Your task to perform on an android device: Open Chrome and go to the settings page Image 0: 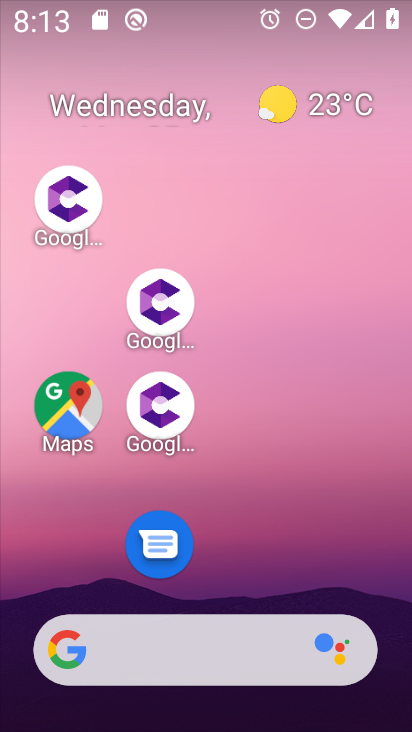
Step 0: drag from (334, 539) to (249, 21)
Your task to perform on an android device: Open Chrome and go to the settings page Image 1: 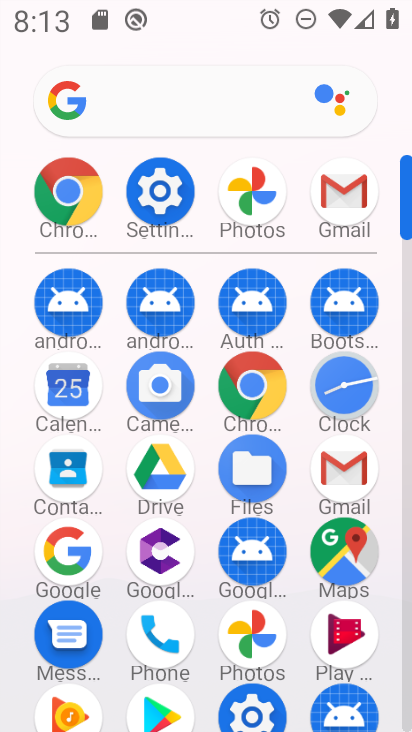
Step 1: click (68, 187)
Your task to perform on an android device: Open Chrome and go to the settings page Image 2: 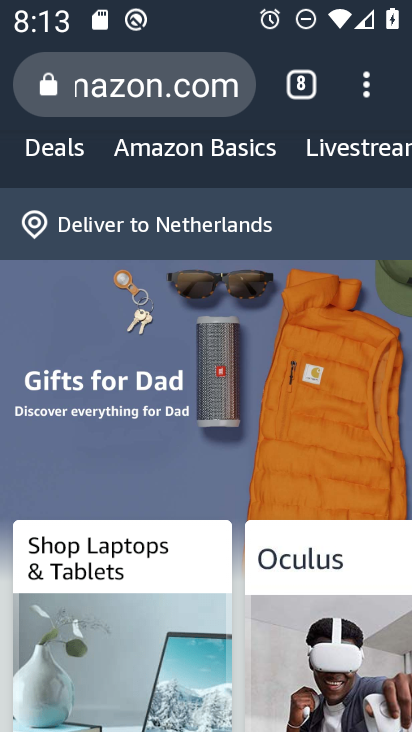
Step 2: click (365, 86)
Your task to perform on an android device: Open Chrome and go to the settings page Image 3: 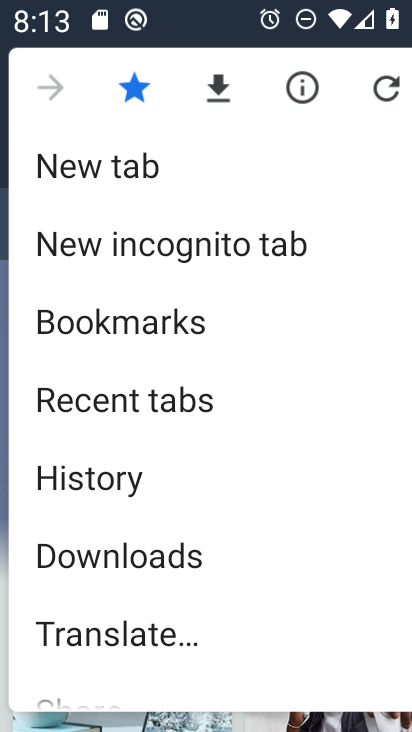
Step 3: drag from (272, 444) to (230, 79)
Your task to perform on an android device: Open Chrome and go to the settings page Image 4: 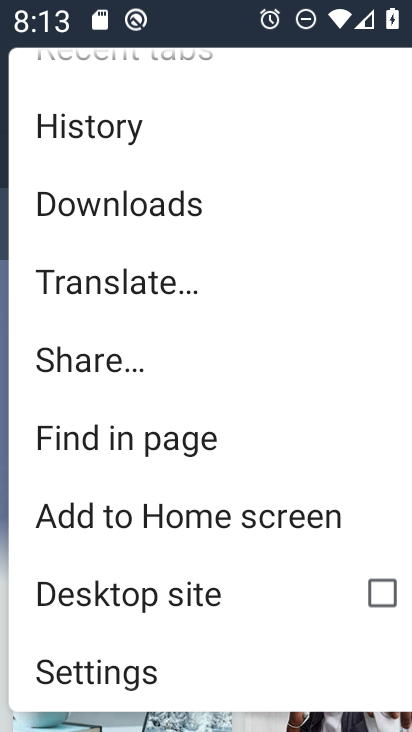
Step 4: drag from (282, 593) to (237, 245)
Your task to perform on an android device: Open Chrome and go to the settings page Image 5: 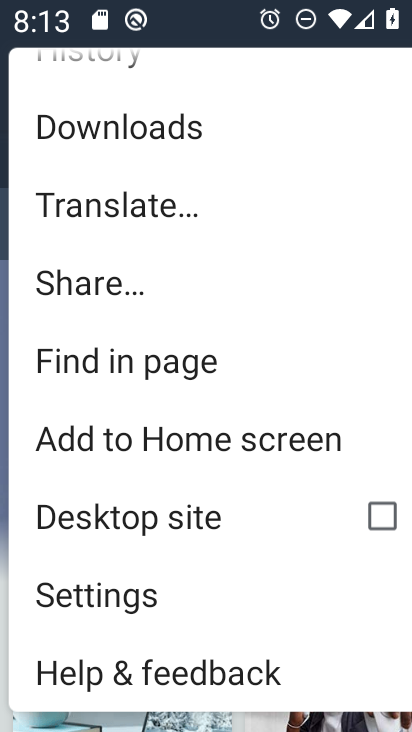
Step 5: click (101, 579)
Your task to perform on an android device: Open Chrome and go to the settings page Image 6: 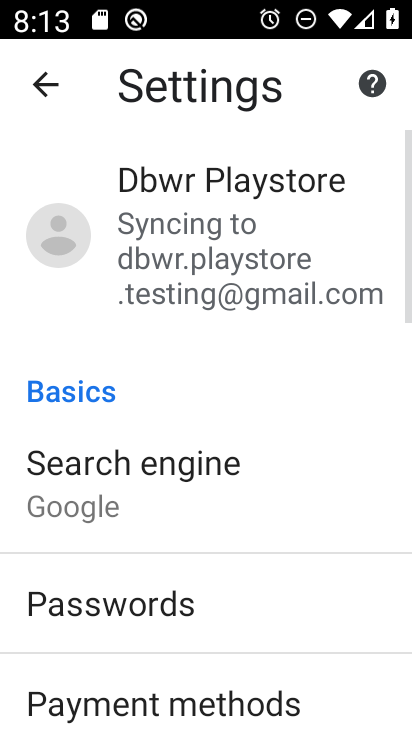
Step 6: task complete